Your task to perform on an android device: turn on location history Image 0: 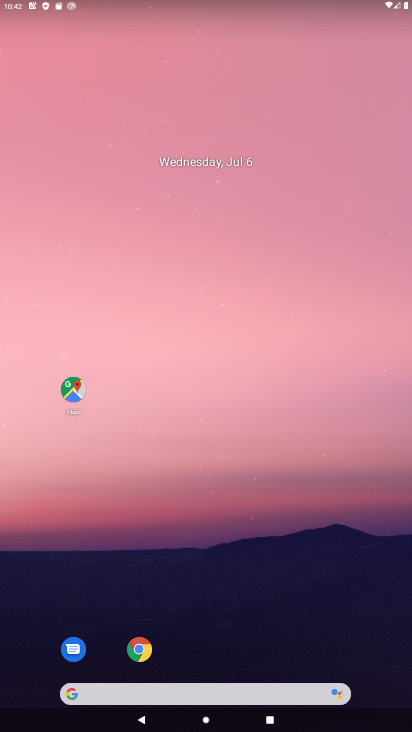
Step 0: drag from (381, 635) to (257, 37)
Your task to perform on an android device: turn on location history Image 1: 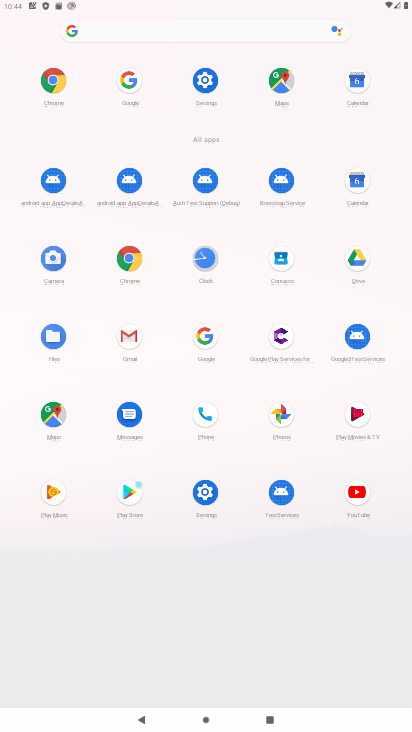
Step 1: click (205, 83)
Your task to perform on an android device: turn on location history Image 2: 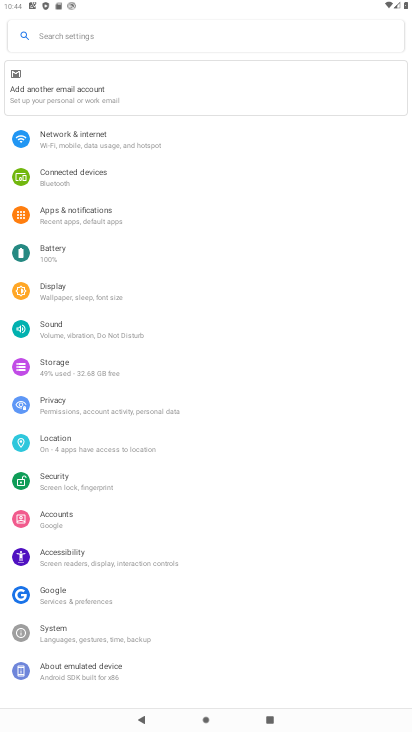
Step 2: click (66, 439)
Your task to perform on an android device: turn on location history Image 3: 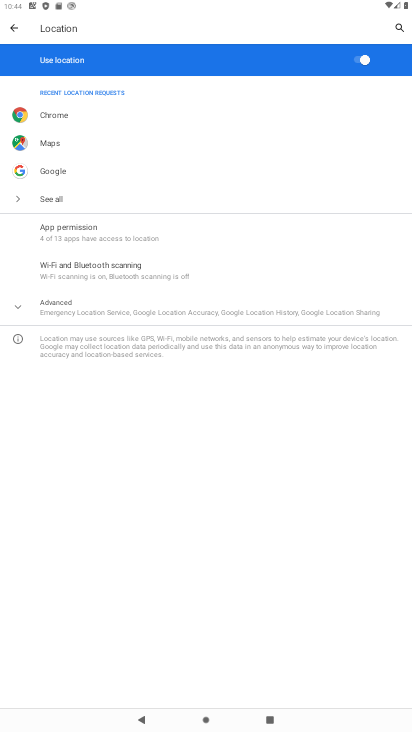
Step 3: click (91, 306)
Your task to perform on an android device: turn on location history Image 4: 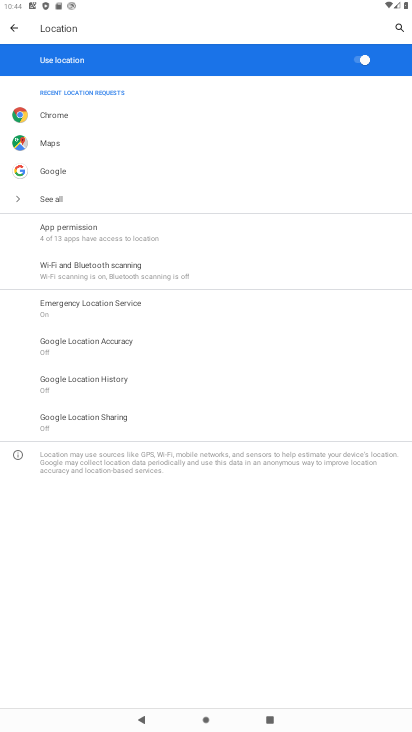
Step 4: click (107, 382)
Your task to perform on an android device: turn on location history Image 5: 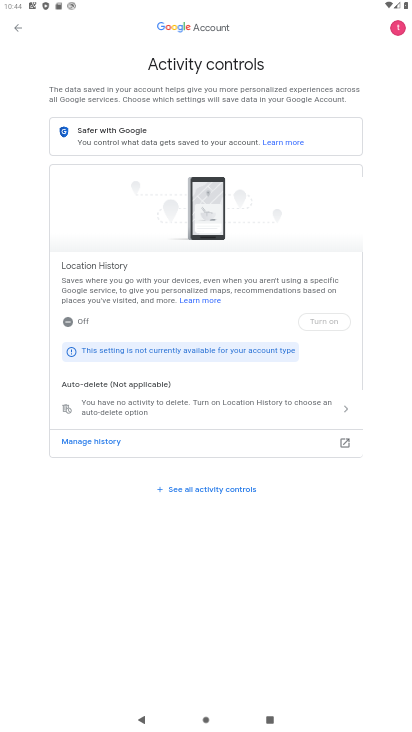
Step 5: task complete